Your task to perform on an android device: Open Chrome and go to the settings page Image 0: 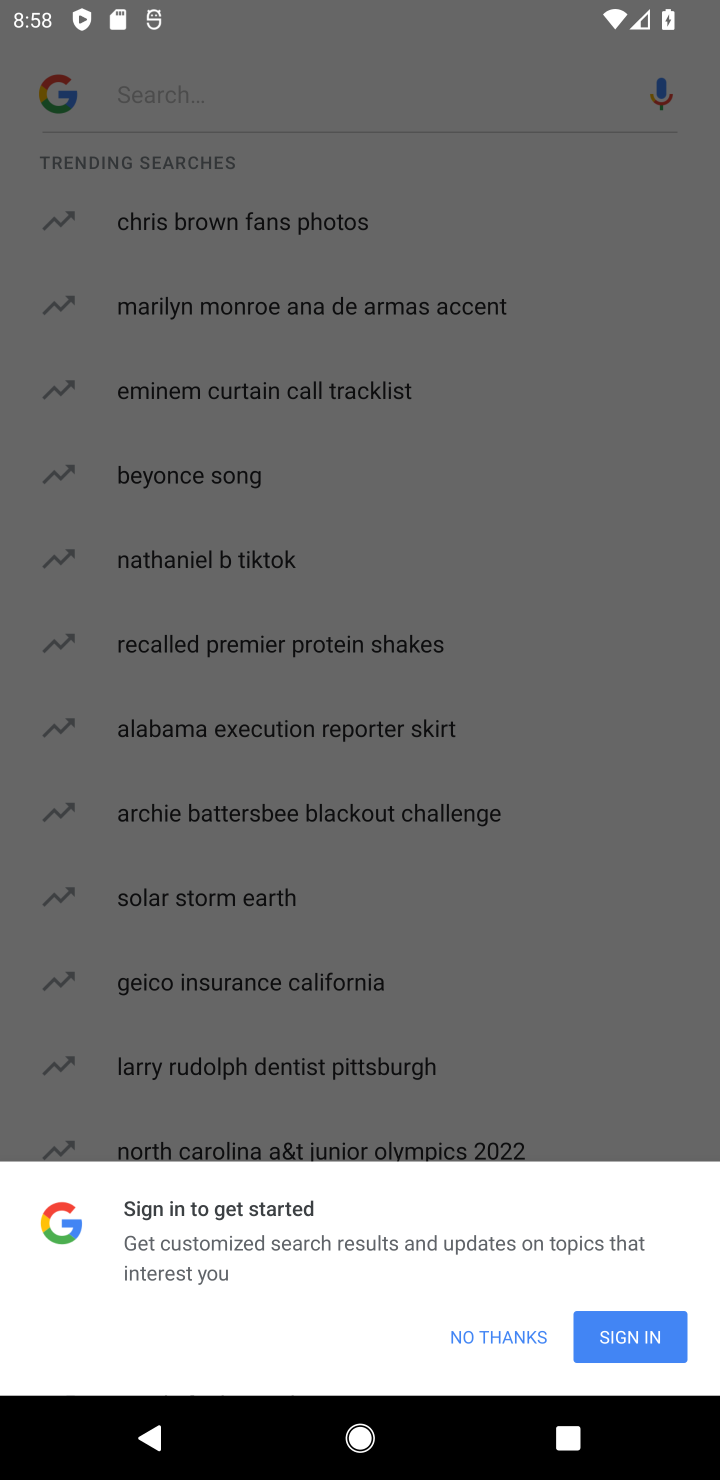
Step 0: press home button
Your task to perform on an android device: Open Chrome and go to the settings page Image 1: 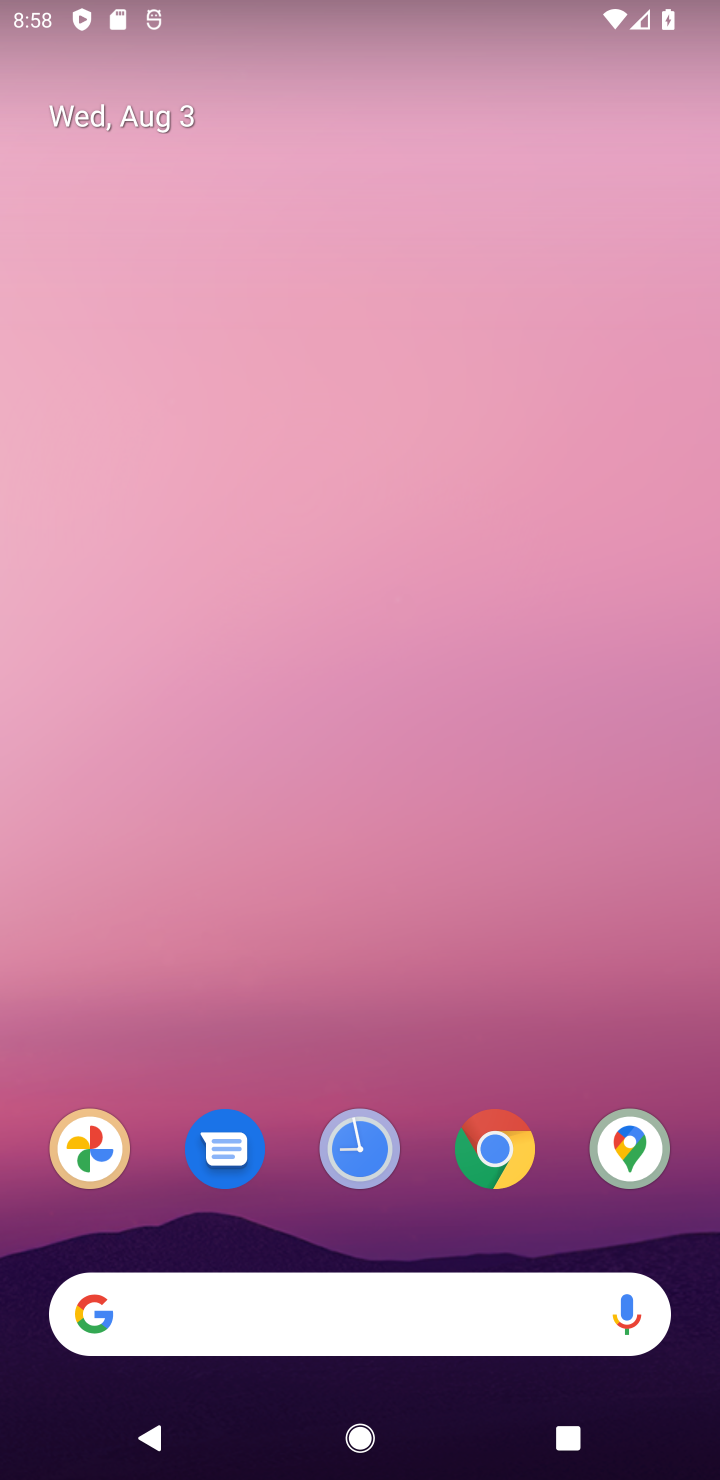
Step 1: click (504, 1145)
Your task to perform on an android device: Open Chrome and go to the settings page Image 2: 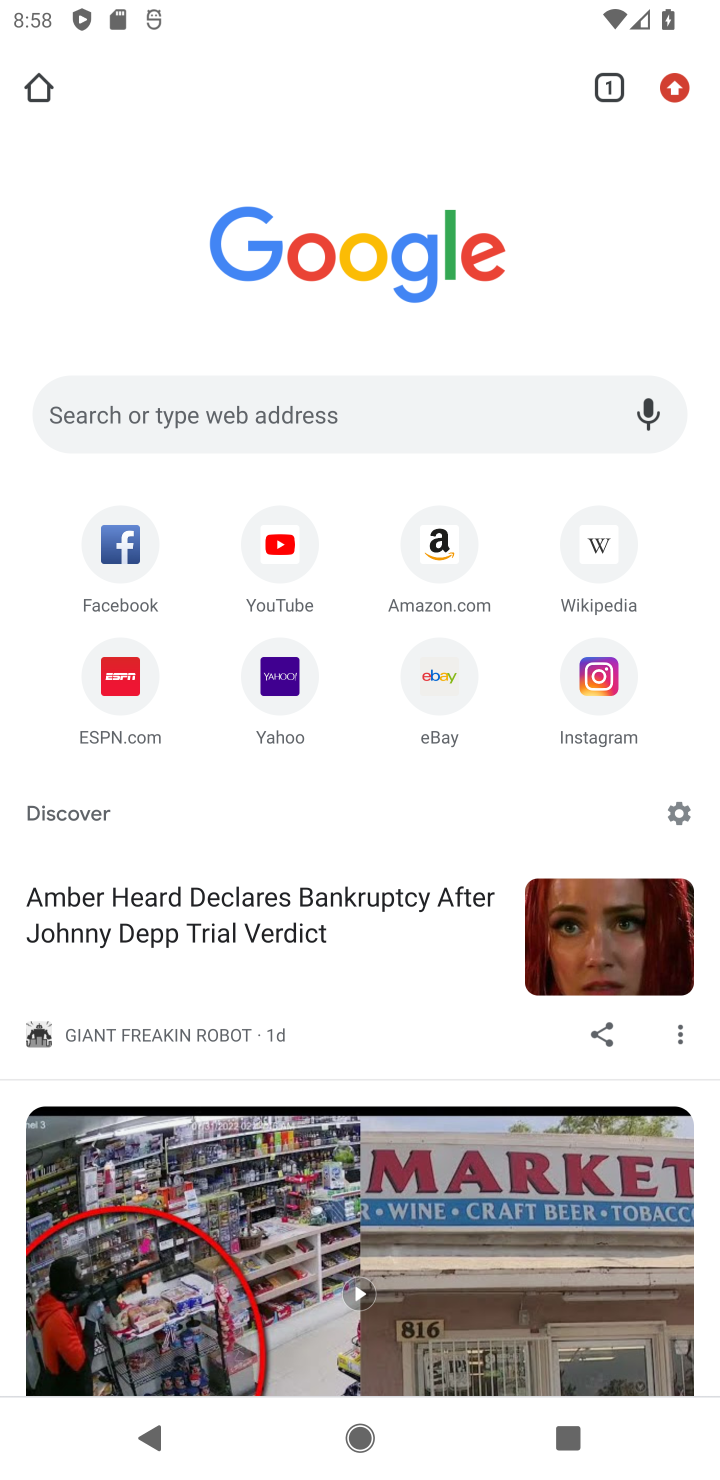
Step 2: click (667, 80)
Your task to perform on an android device: Open Chrome and go to the settings page Image 3: 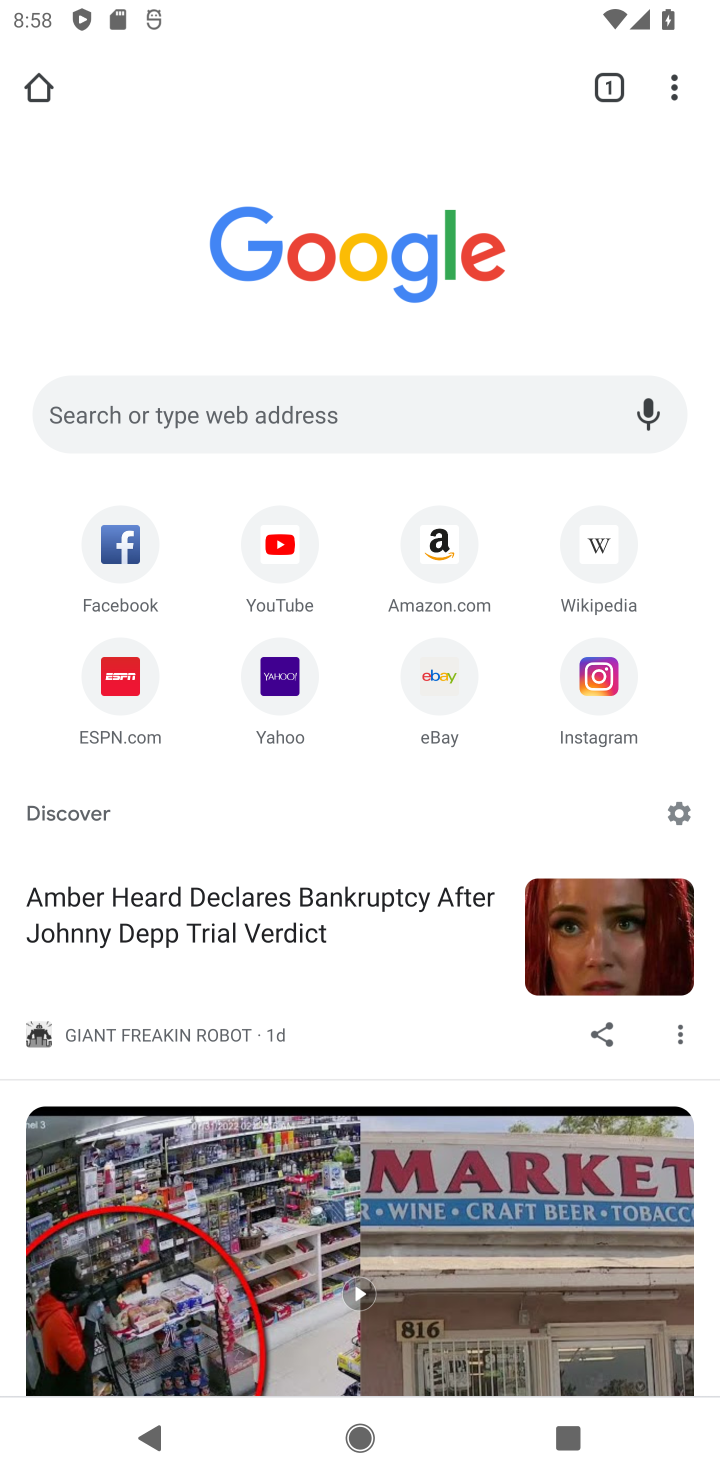
Step 3: click (680, 97)
Your task to perform on an android device: Open Chrome and go to the settings page Image 4: 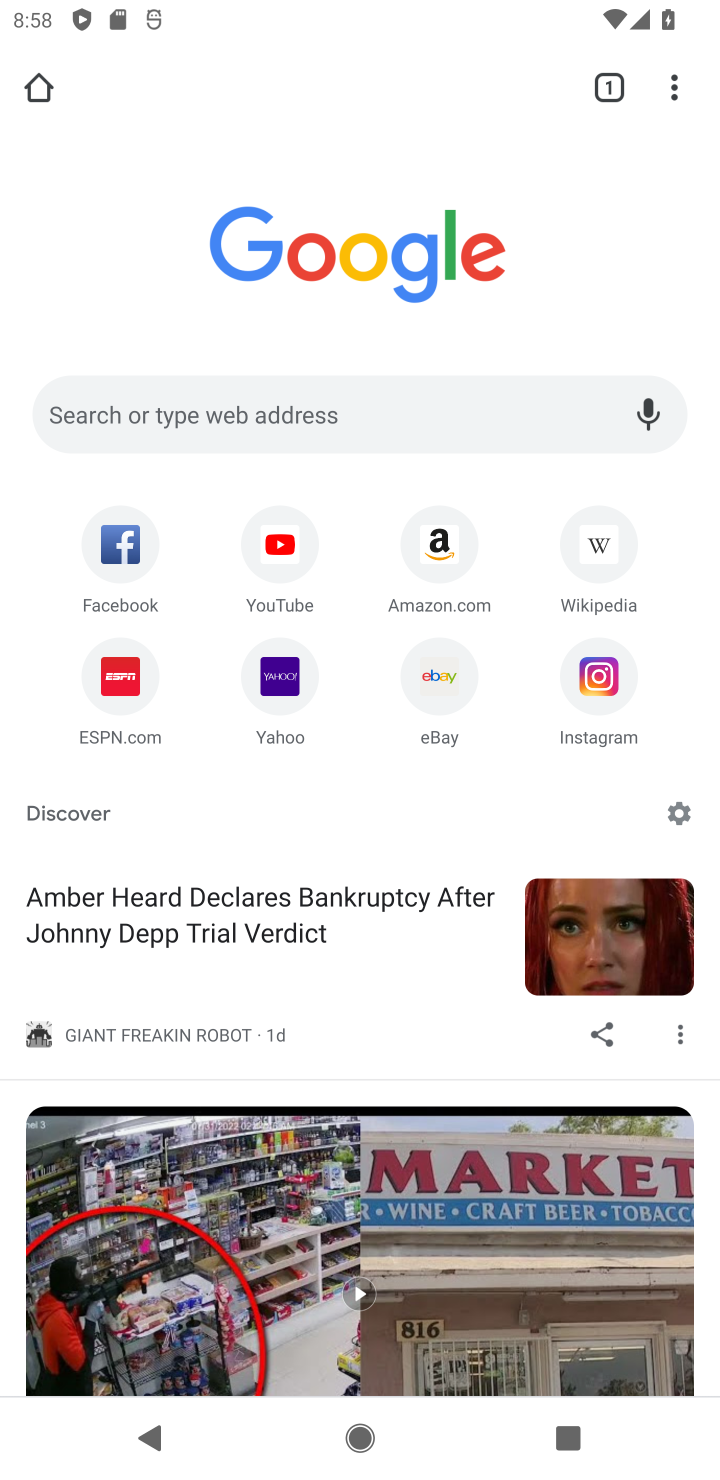
Step 4: click (677, 88)
Your task to perform on an android device: Open Chrome and go to the settings page Image 5: 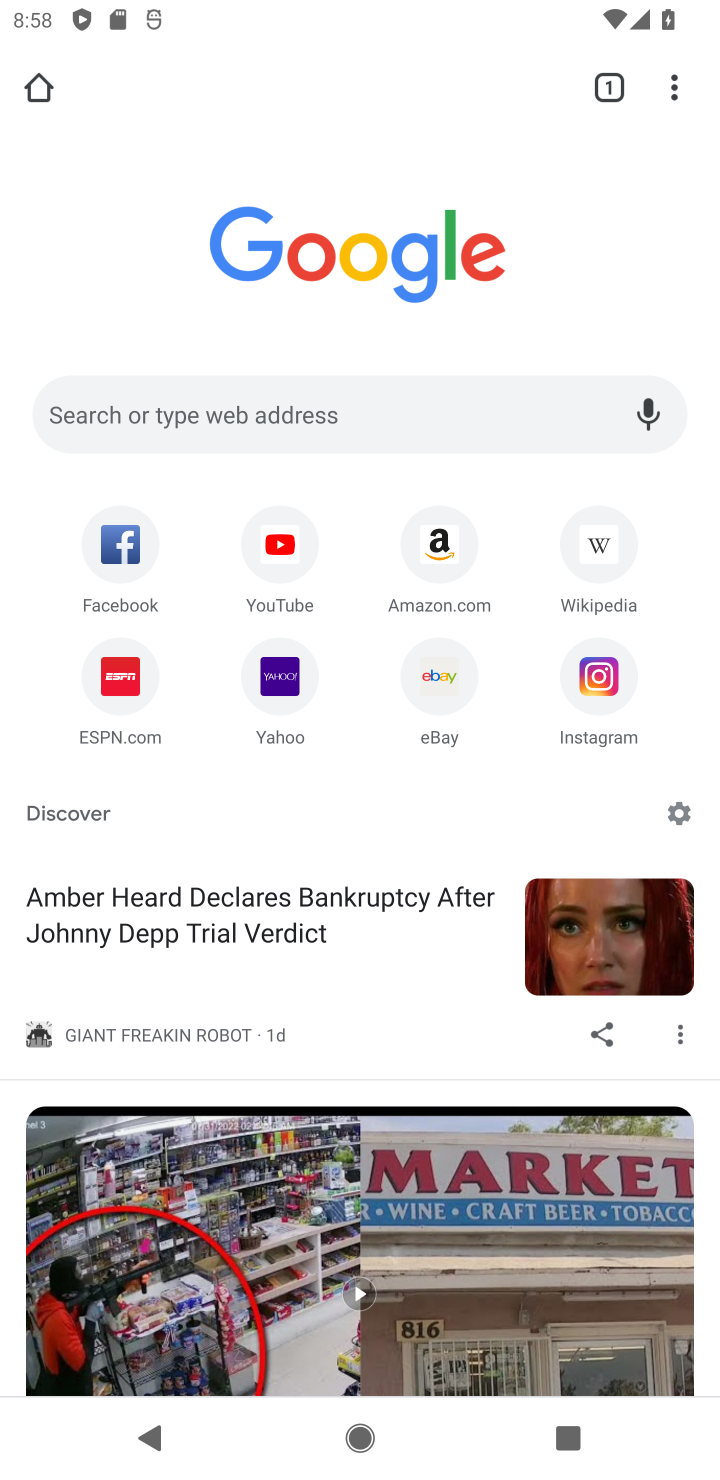
Step 5: click (649, 88)
Your task to perform on an android device: Open Chrome and go to the settings page Image 6: 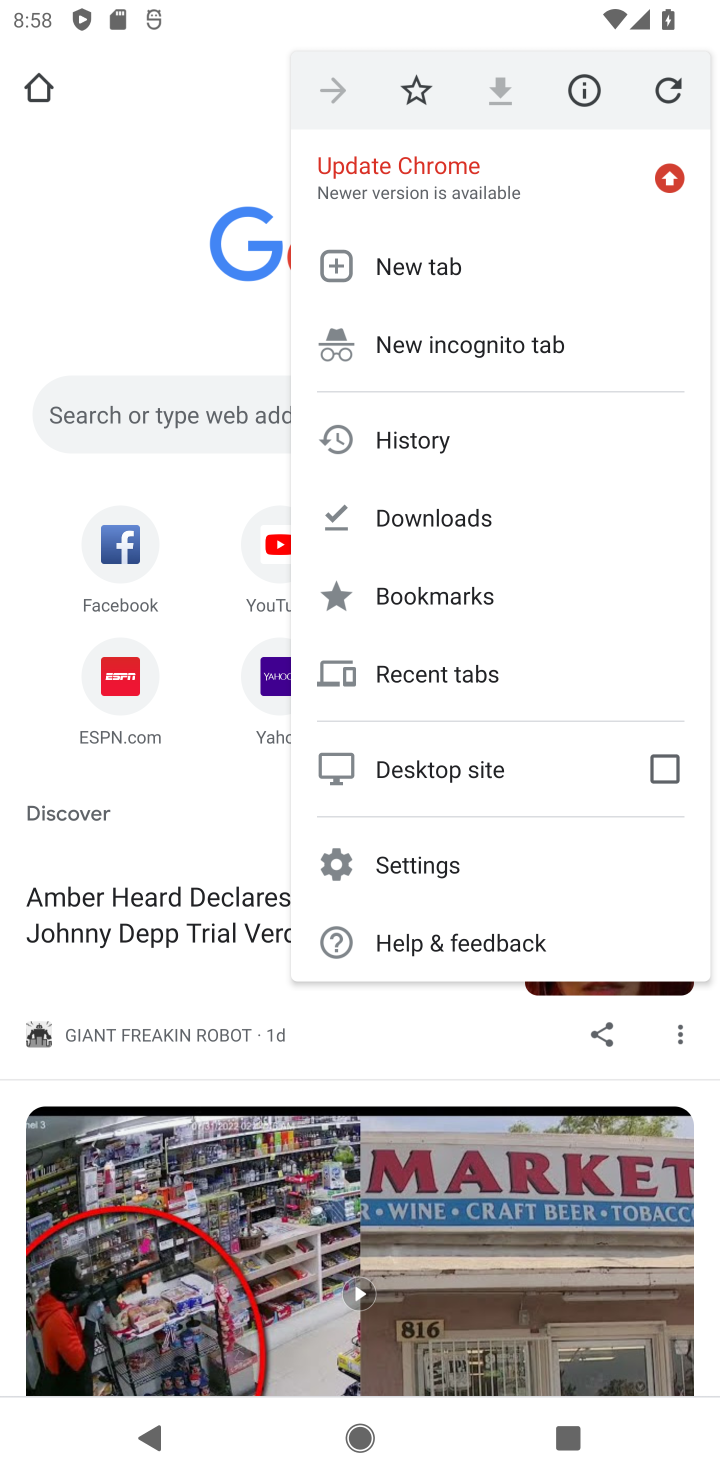
Step 6: click (394, 859)
Your task to perform on an android device: Open Chrome and go to the settings page Image 7: 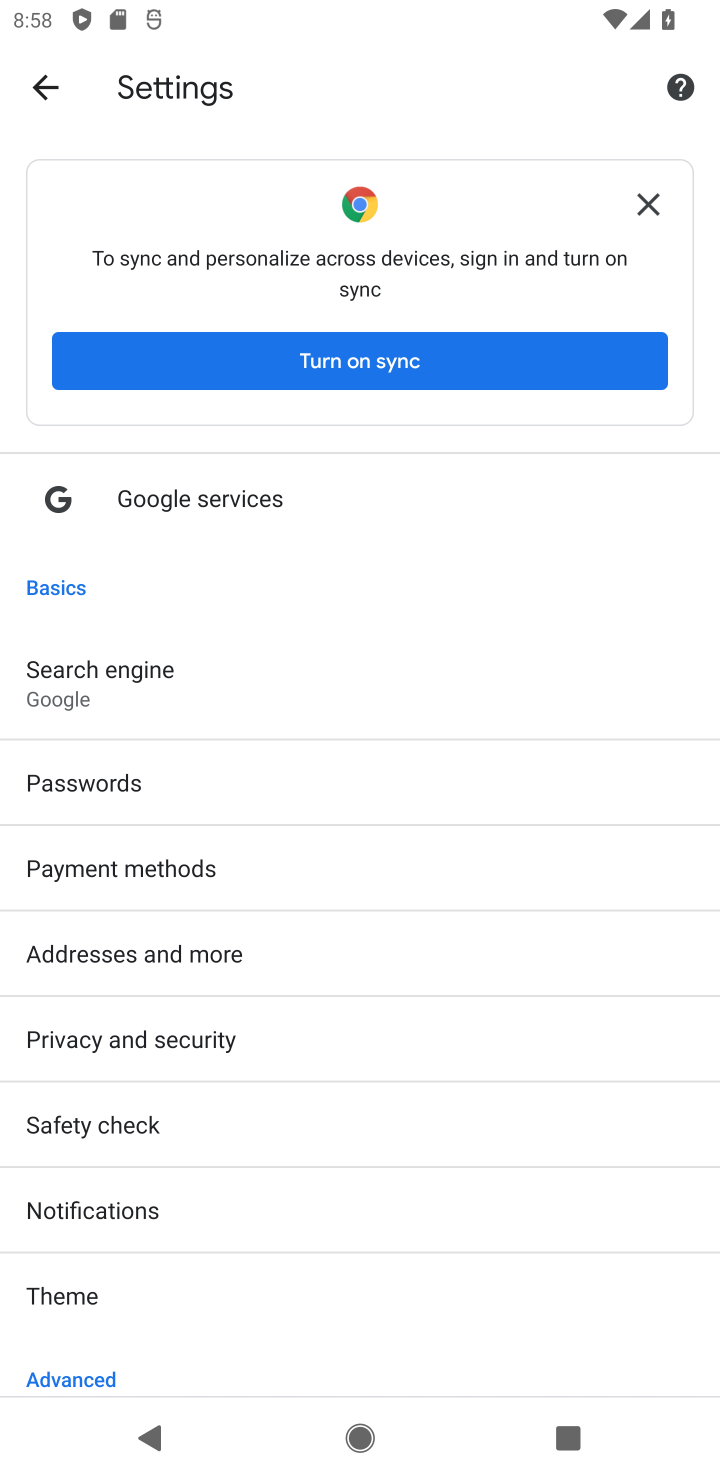
Step 7: task complete